Your task to perform on an android device: Set the phone to "Do not disturb". Image 0: 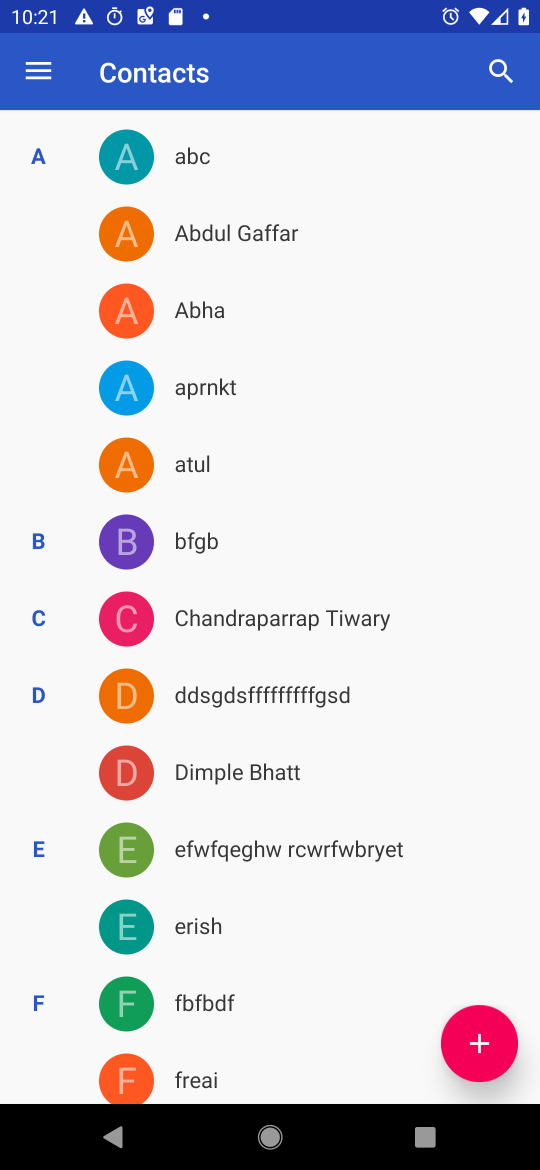
Step 0: press home button
Your task to perform on an android device: Set the phone to "Do not disturb". Image 1: 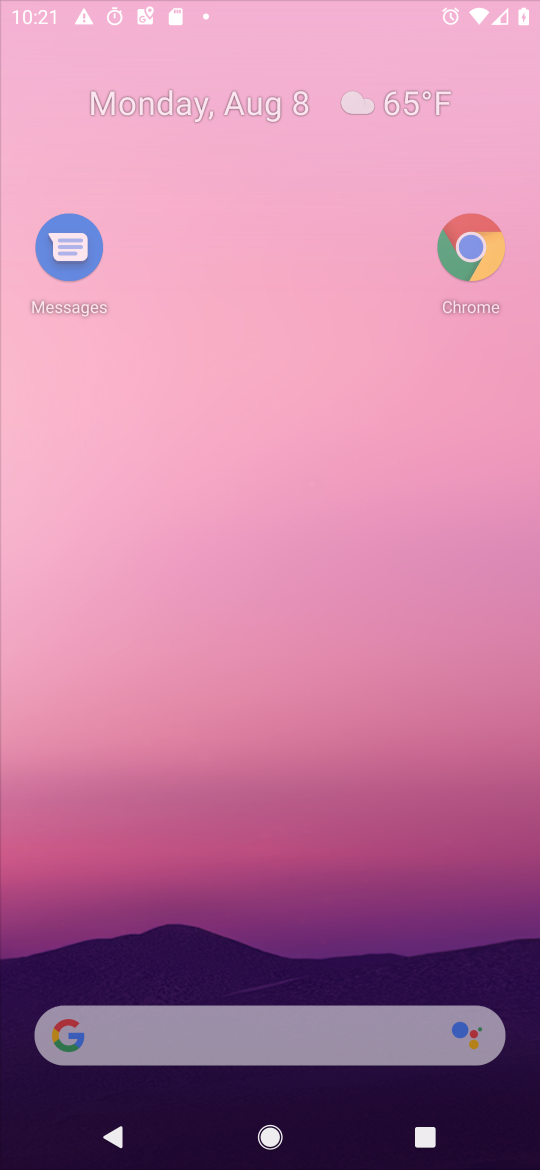
Step 1: click (259, 238)
Your task to perform on an android device: Set the phone to "Do not disturb". Image 2: 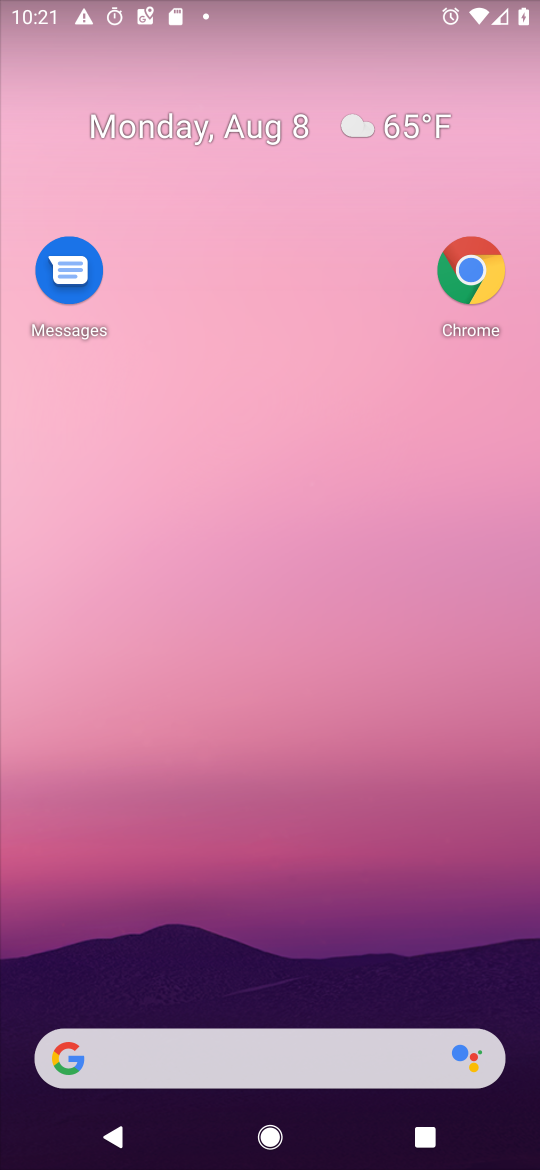
Step 2: drag from (243, 978) to (277, 135)
Your task to perform on an android device: Set the phone to "Do not disturb". Image 3: 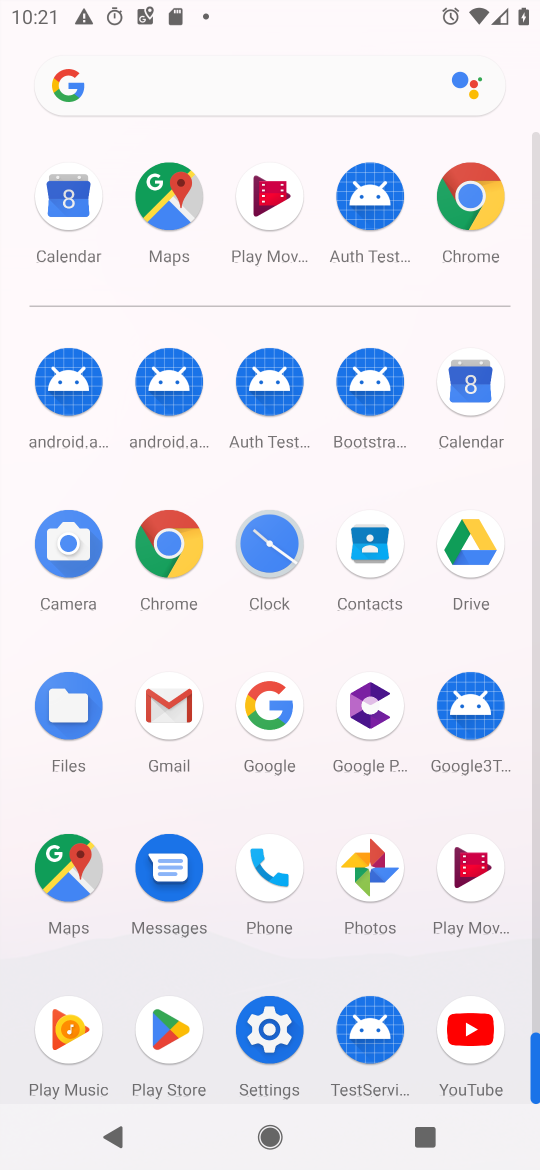
Step 3: click (255, 1030)
Your task to perform on an android device: Set the phone to "Do not disturb". Image 4: 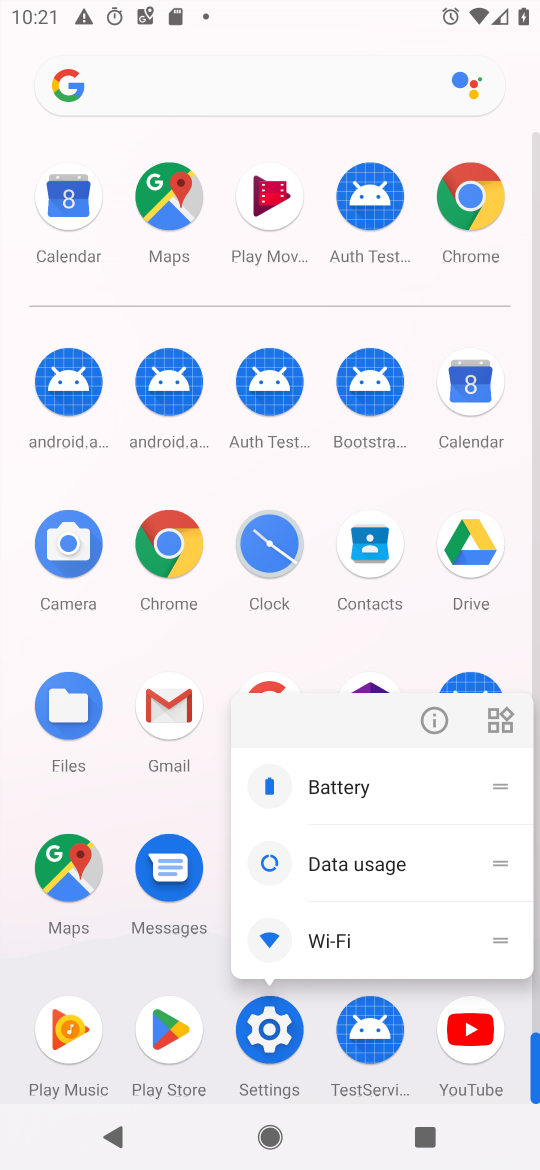
Step 4: click (436, 722)
Your task to perform on an android device: Set the phone to "Do not disturb". Image 5: 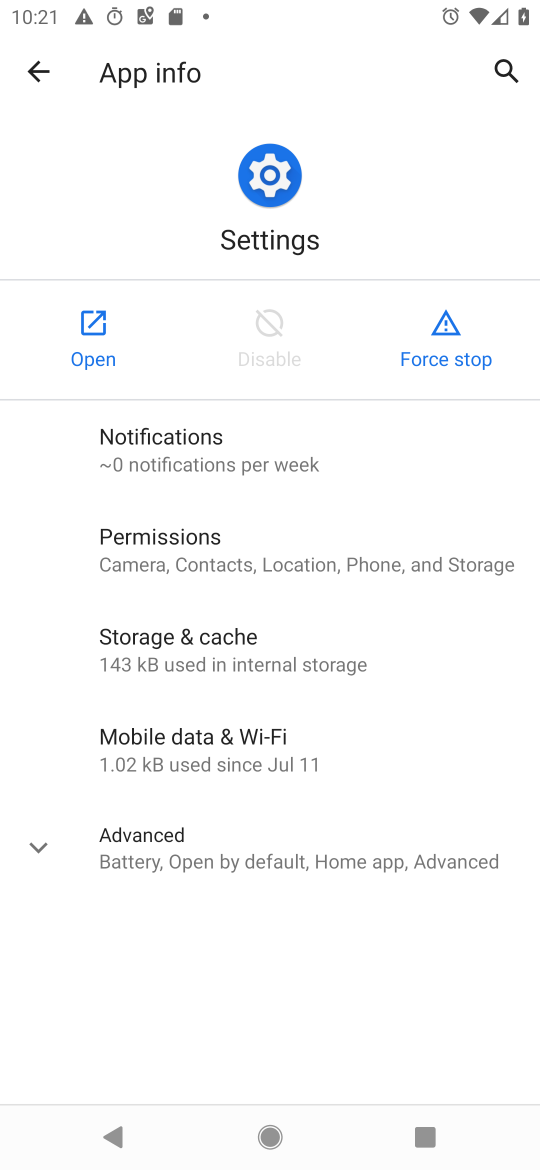
Step 5: click (92, 319)
Your task to perform on an android device: Set the phone to "Do not disturb". Image 6: 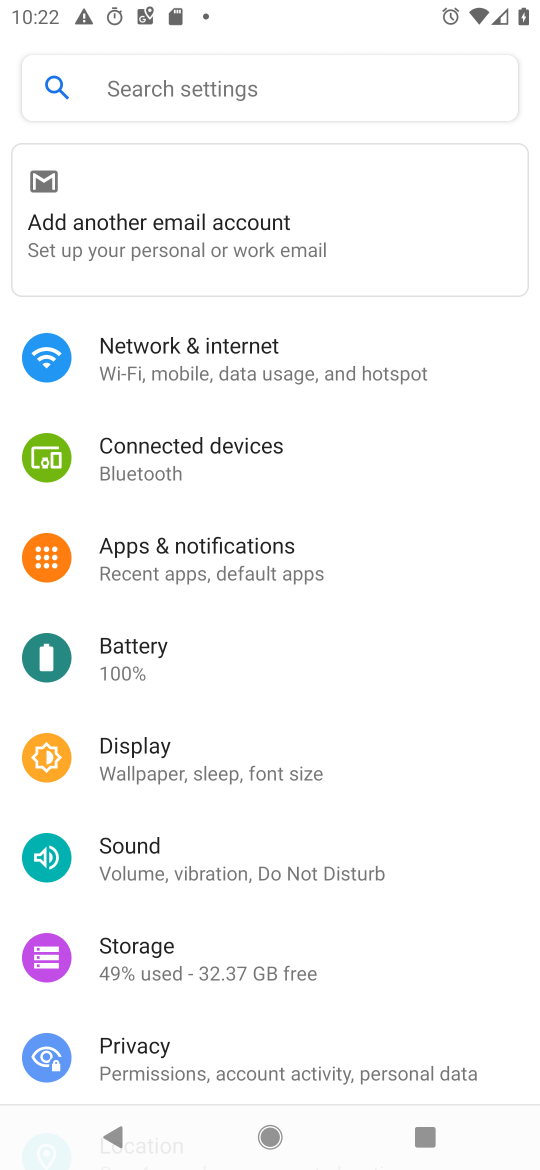
Step 6: click (178, 571)
Your task to perform on an android device: Set the phone to "Do not disturb". Image 7: 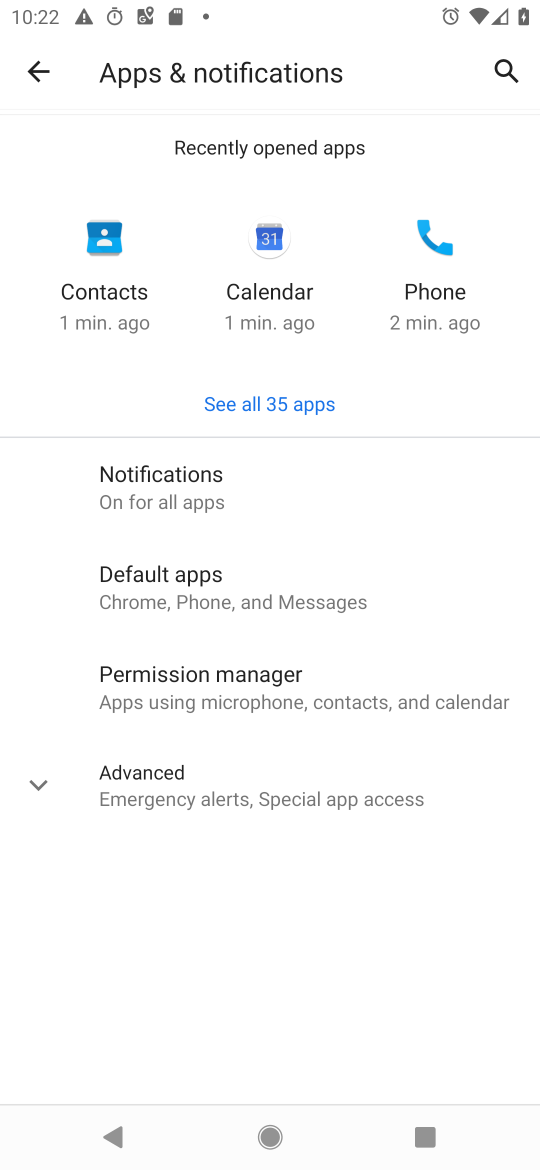
Step 7: click (257, 480)
Your task to perform on an android device: Set the phone to "Do not disturb". Image 8: 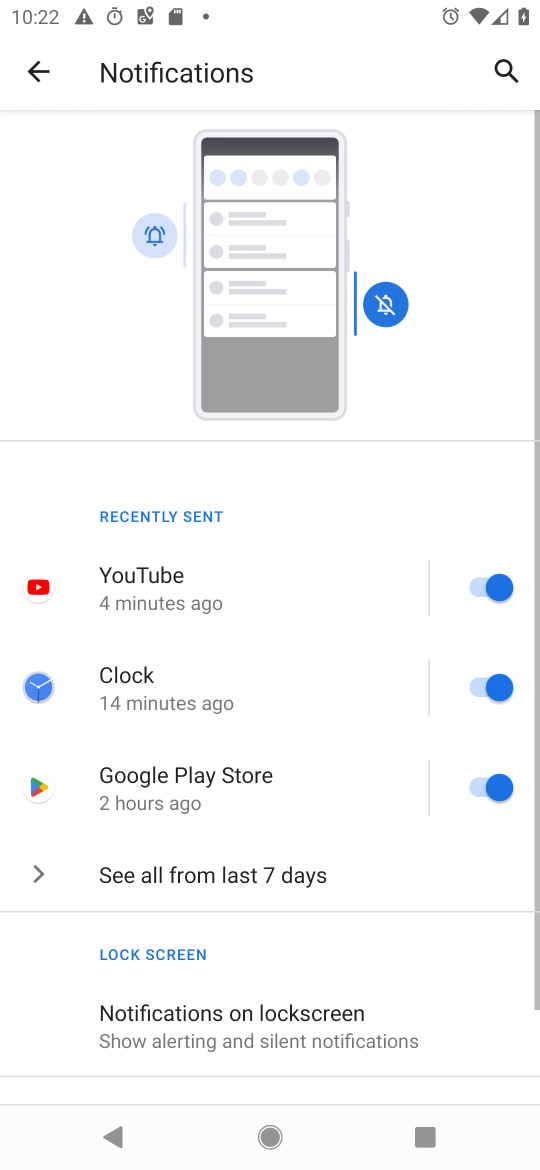
Step 8: drag from (266, 848) to (348, 400)
Your task to perform on an android device: Set the phone to "Do not disturb". Image 9: 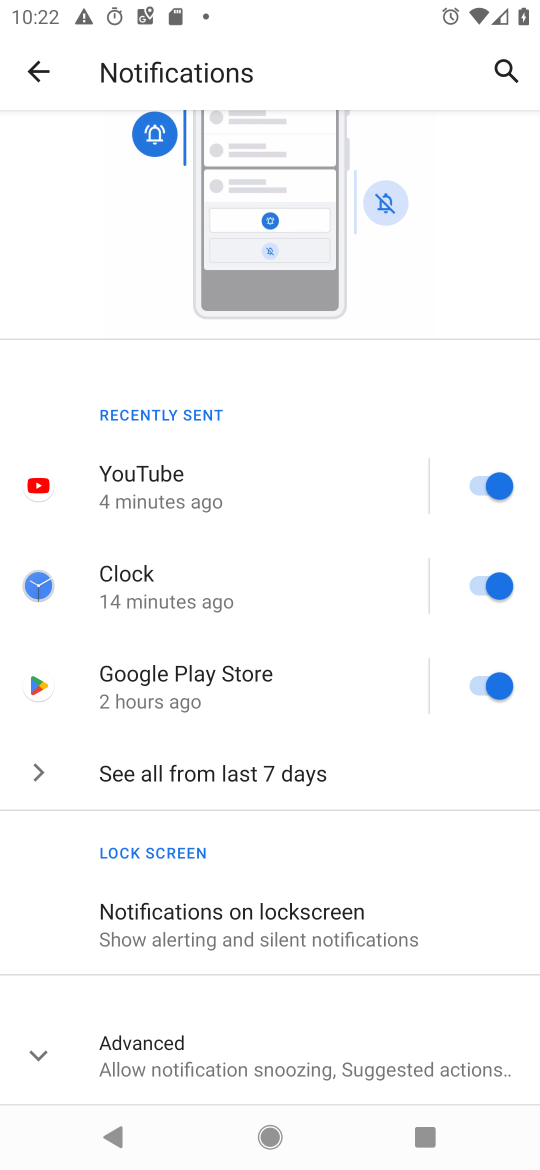
Step 9: drag from (252, 1031) to (331, 417)
Your task to perform on an android device: Set the phone to "Do not disturb". Image 10: 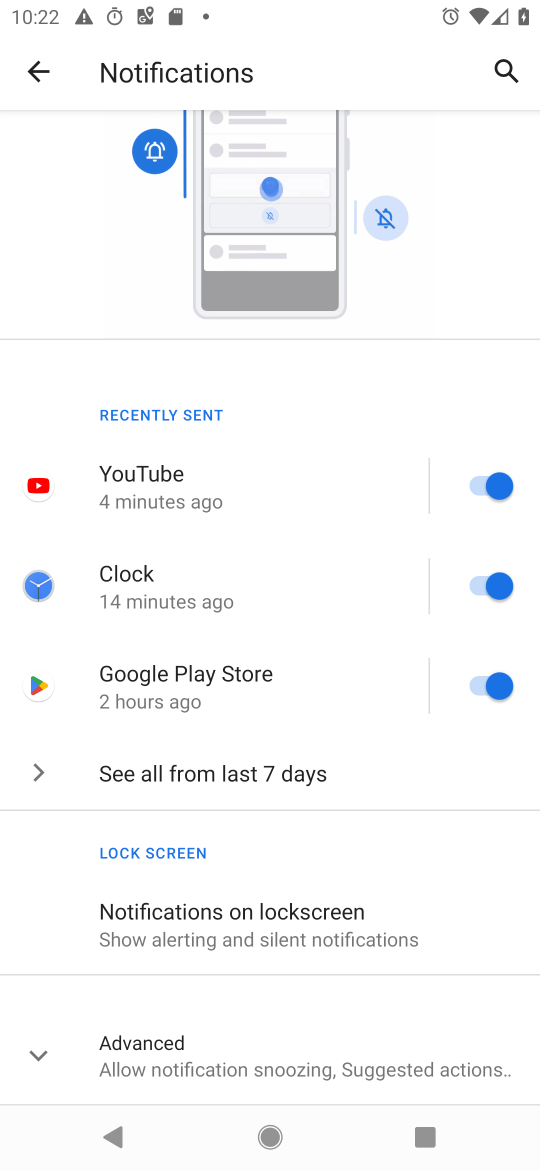
Step 10: click (149, 1046)
Your task to perform on an android device: Set the phone to "Do not disturb". Image 11: 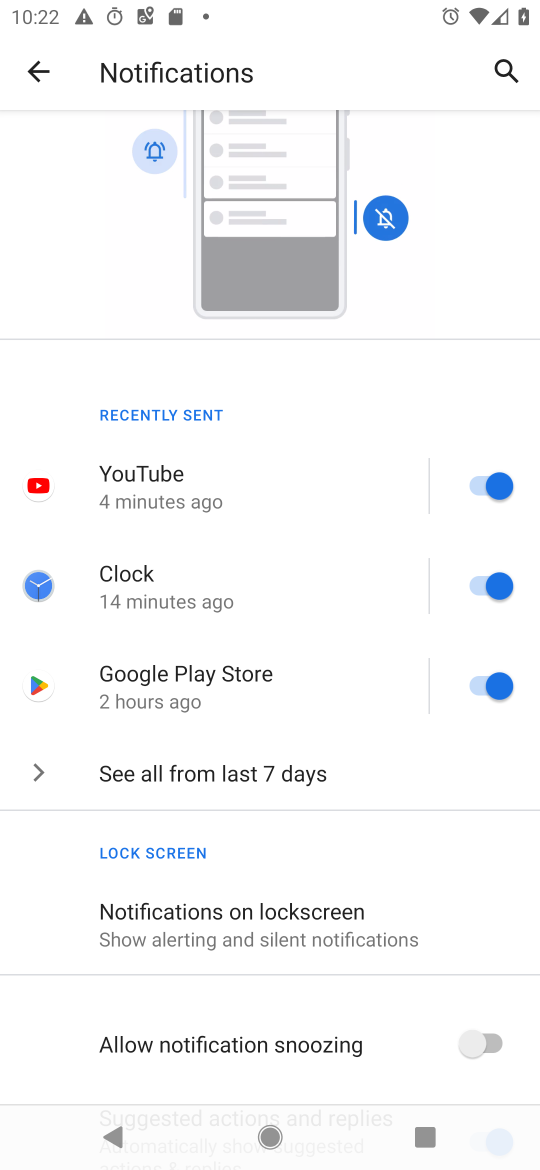
Step 11: drag from (352, 939) to (443, 242)
Your task to perform on an android device: Set the phone to "Do not disturb". Image 12: 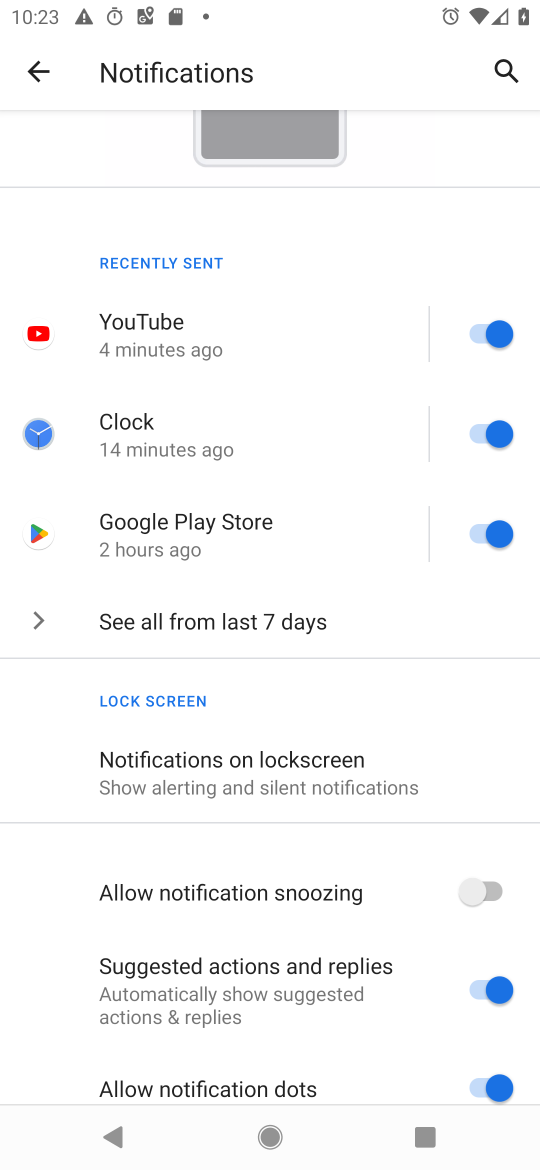
Step 12: drag from (211, 780) to (526, 153)
Your task to perform on an android device: Set the phone to "Do not disturb". Image 13: 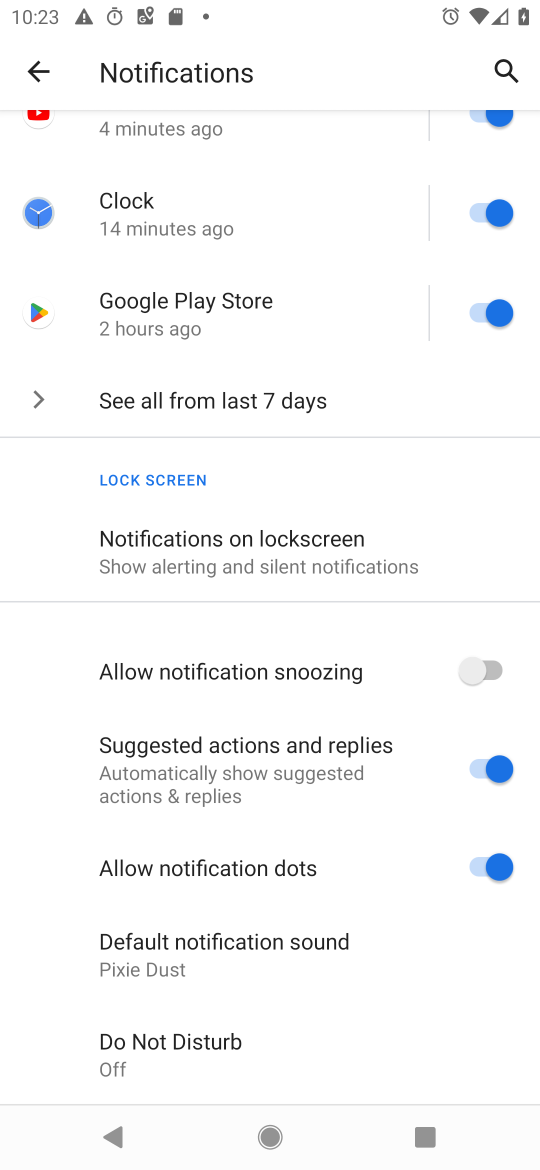
Step 13: click (185, 1047)
Your task to perform on an android device: Set the phone to "Do not disturb". Image 14: 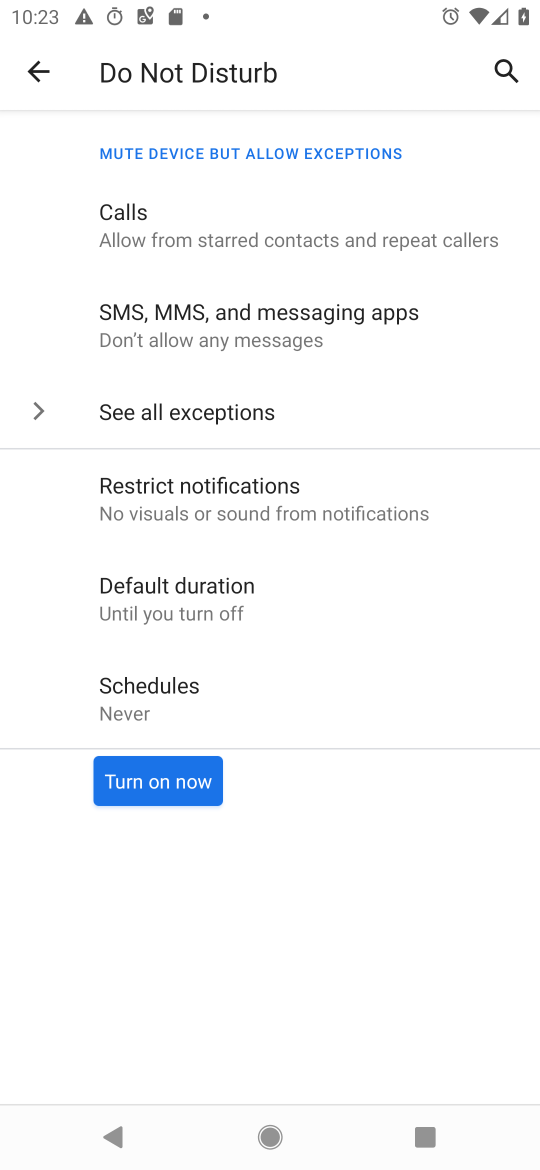
Step 14: click (150, 799)
Your task to perform on an android device: Set the phone to "Do not disturb". Image 15: 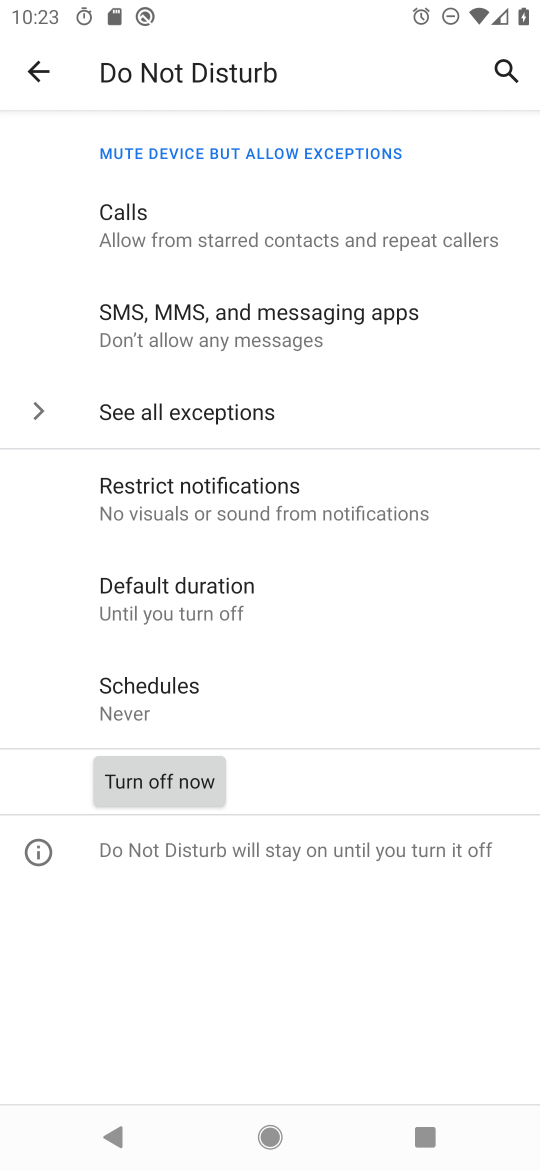
Step 15: task complete